Your task to perform on an android device: Open display settings Image 0: 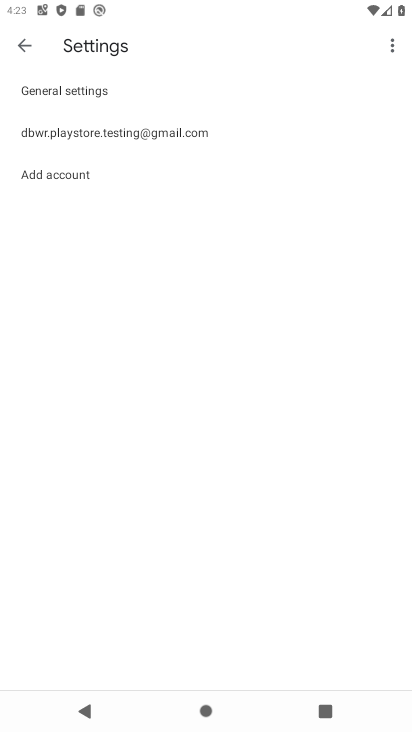
Step 0: press home button
Your task to perform on an android device: Open display settings Image 1: 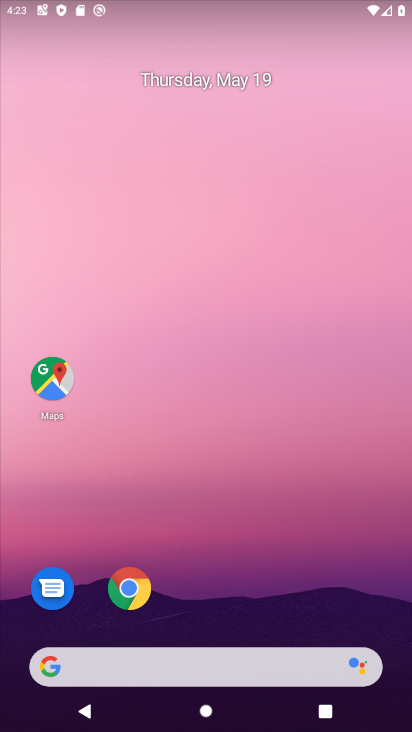
Step 1: drag from (255, 584) to (378, 213)
Your task to perform on an android device: Open display settings Image 2: 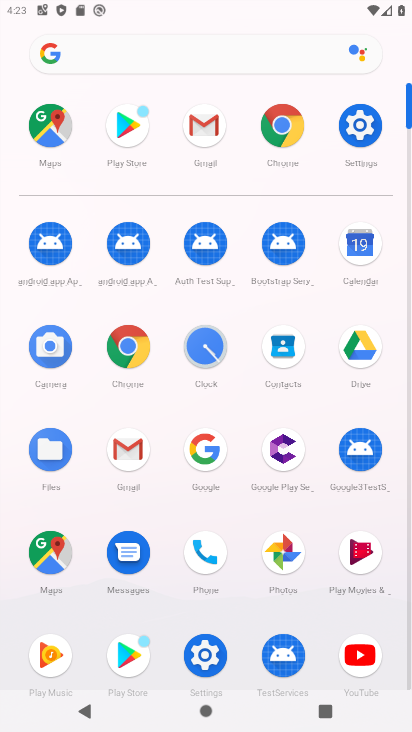
Step 2: click (350, 192)
Your task to perform on an android device: Open display settings Image 3: 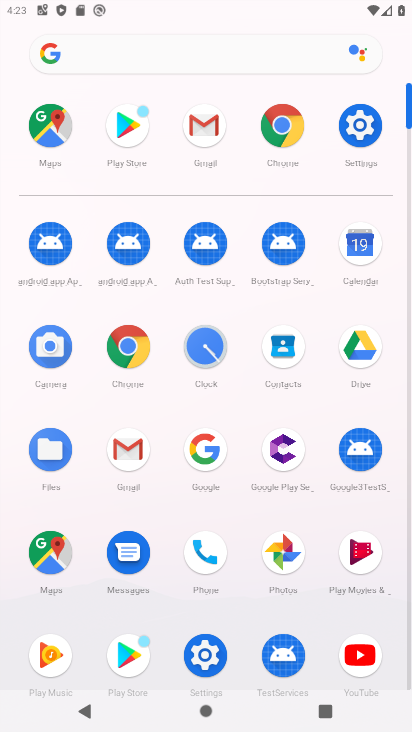
Step 3: click (360, 145)
Your task to perform on an android device: Open display settings Image 4: 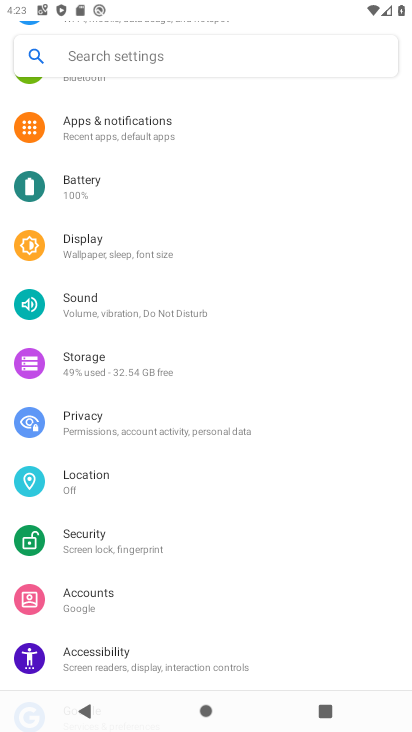
Step 4: click (113, 240)
Your task to perform on an android device: Open display settings Image 5: 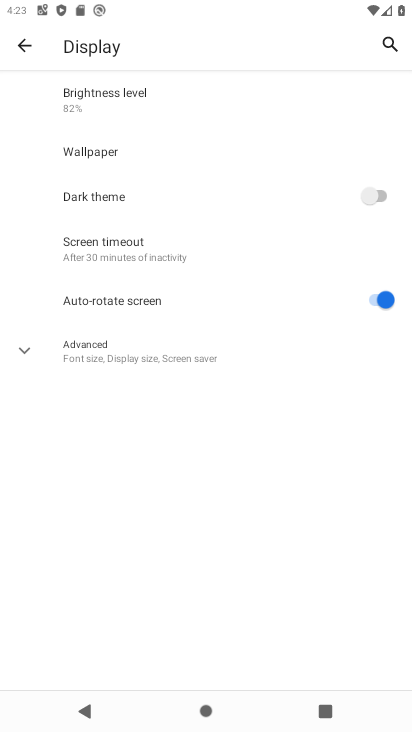
Step 5: task complete